Your task to perform on an android device: open device folders in google photos Image 0: 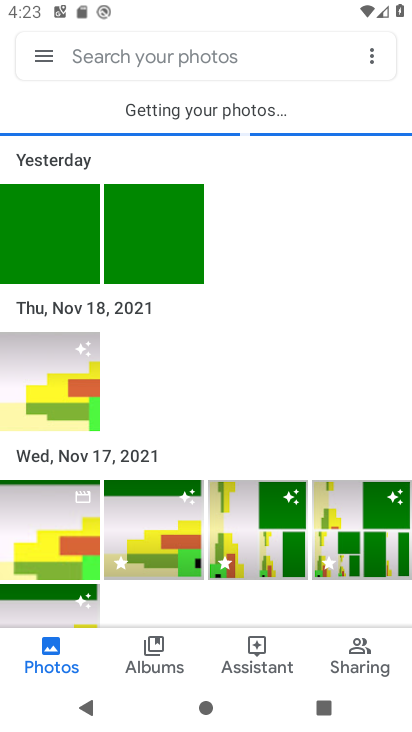
Step 0: press home button
Your task to perform on an android device: open device folders in google photos Image 1: 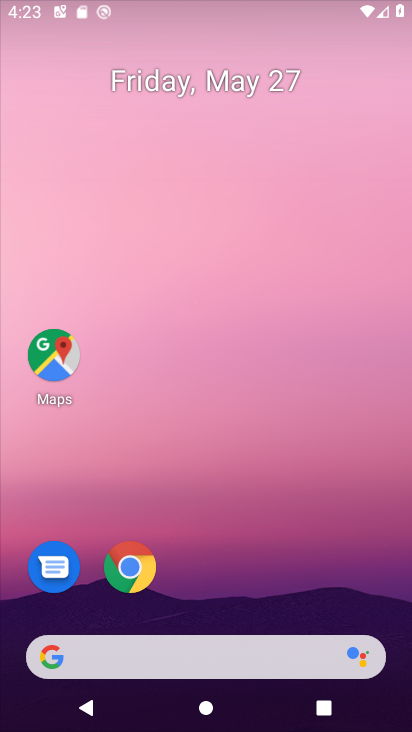
Step 1: drag from (275, 581) to (219, 57)
Your task to perform on an android device: open device folders in google photos Image 2: 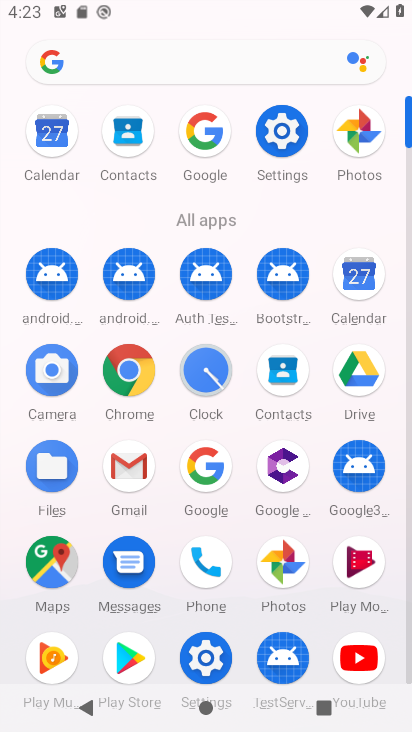
Step 2: click (282, 564)
Your task to perform on an android device: open device folders in google photos Image 3: 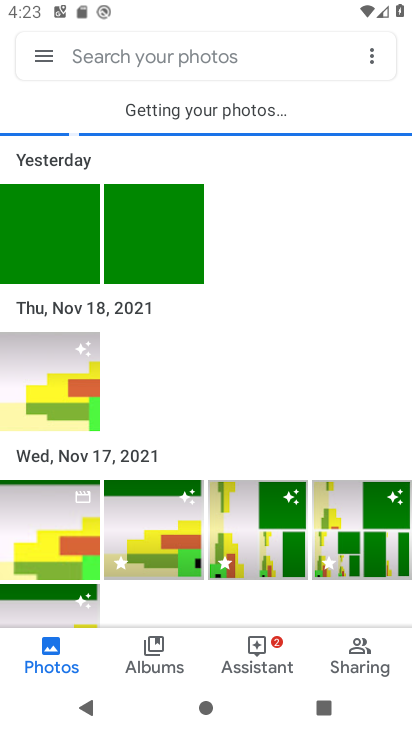
Step 3: click (50, 58)
Your task to perform on an android device: open device folders in google photos Image 4: 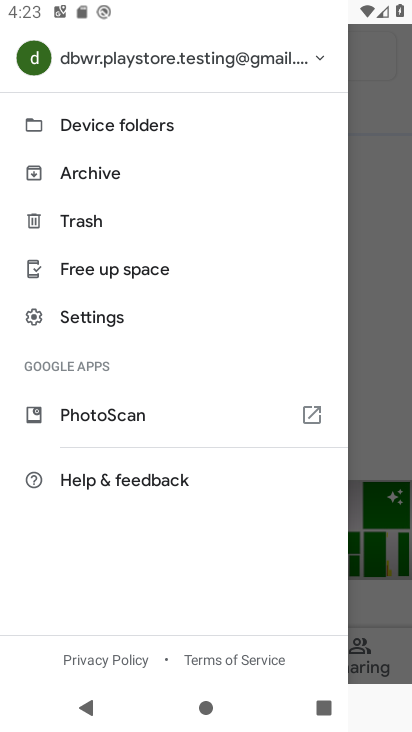
Step 4: click (147, 122)
Your task to perform on an android device: open device folders in google photos Image 5: 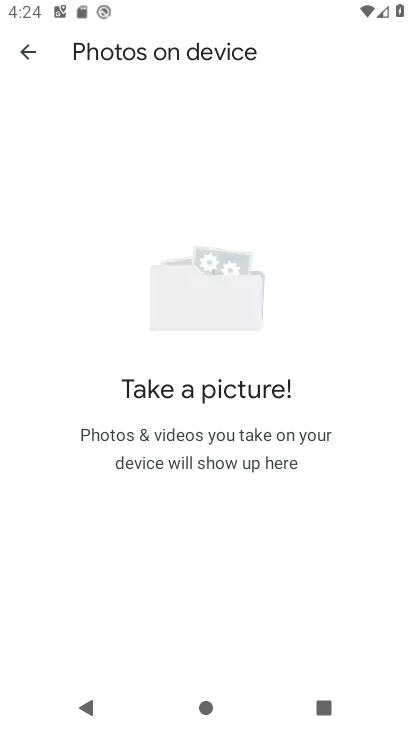
Step 5: task complete